Your task to perform on an android device: allow notifications from all sites in the chrome app Image 0: 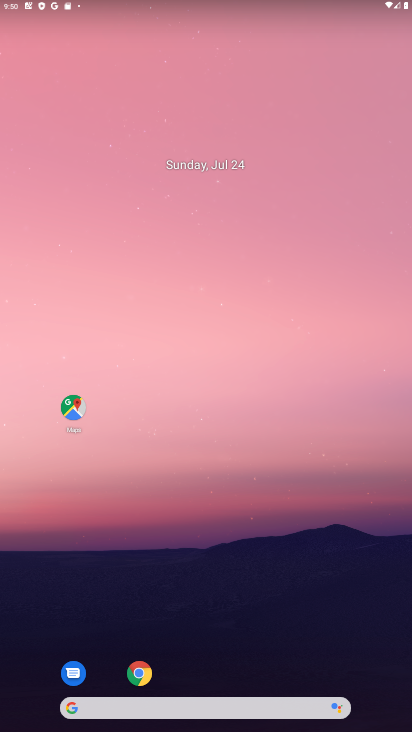
Step 0: click (141, 664)
Your task to perform on an android device: allow notifications from all sites in the chrome app Image 1: 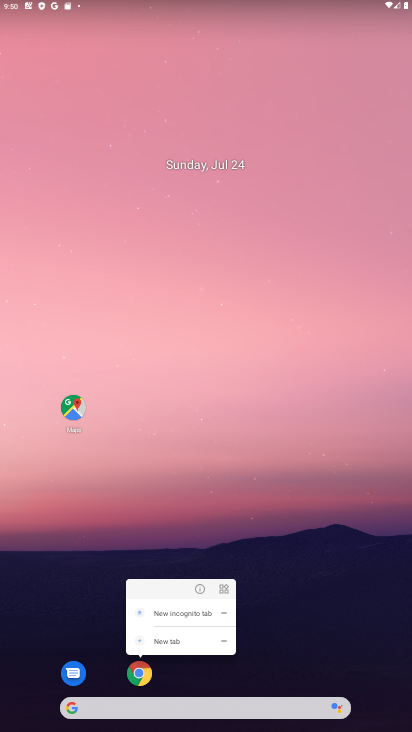
Step 1: click (140, 668)
Your task to perform on an android device: allow notifications from all sites in the chrome app Image 2: 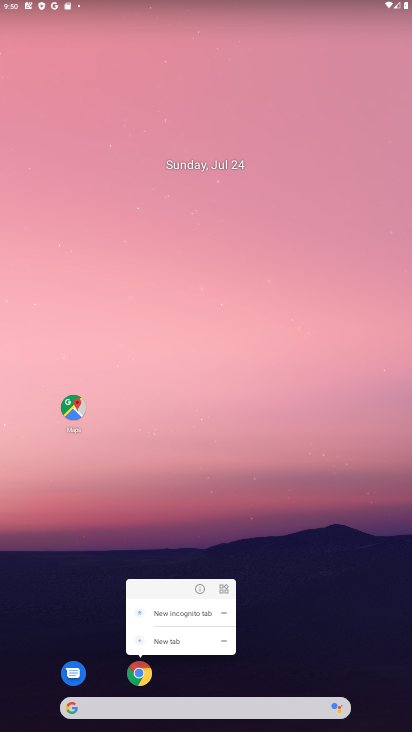
Step 2: click (143, 667)
Your task to perform on an android device: allow notifications from all sites in the chrome app Image 3: 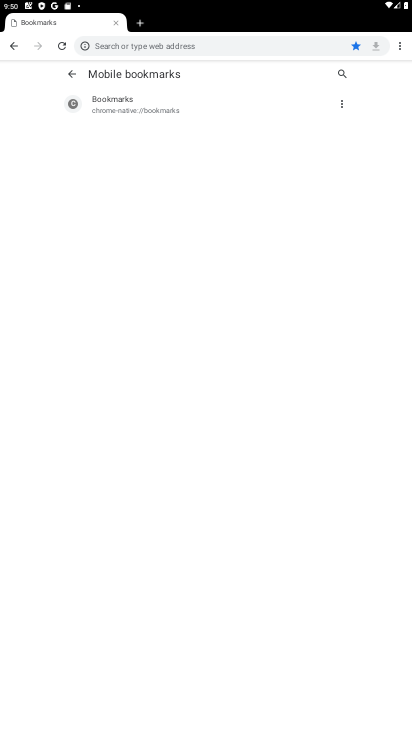
Step 3: click (400, 46)
Your task to perform on an android device: allow notifications from all sites in the chrome app Image 4: 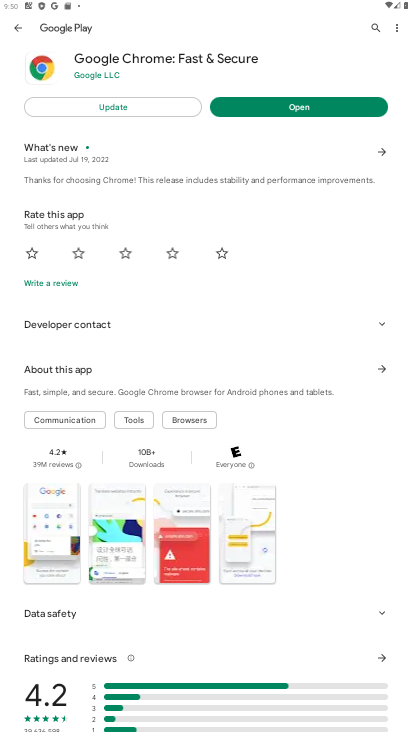
Step 4: click (395, 21)
Your task to perform on an android device: allow notifications from all sites in the chrome app Image 5: 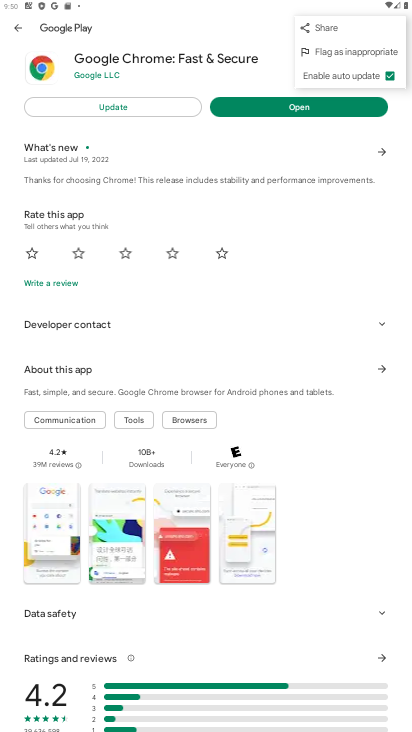
Step 5: click (21, 28)
Your task to perform on an android device: allow notifications from all sites in the chrome app Image 6: 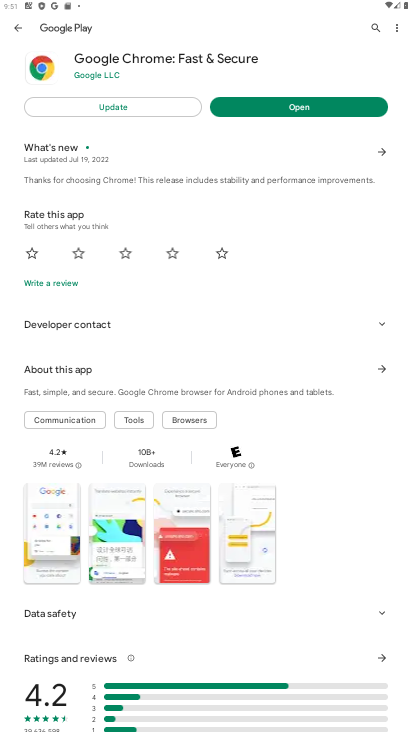
Step 6: click (398, 20)
Your task to perform on an android device: allow notifications from all sites in the chrome app Image 7: 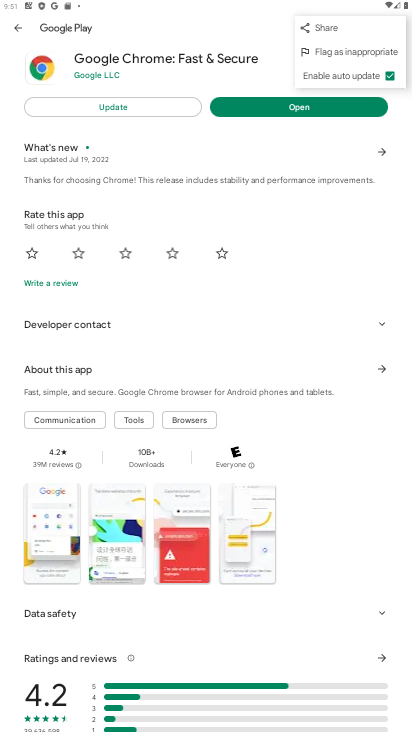
Step 7: click (20, 28)
Your task to perform on an android device: allow notifications from all sites in the chrome app Image 8: 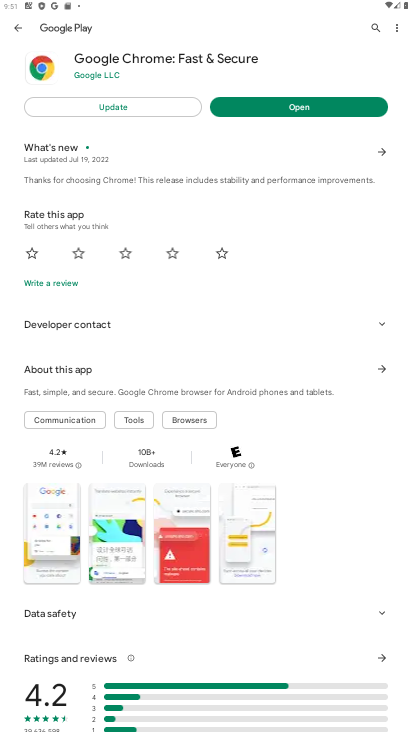
Step 8: click (13, 26)
Your task to perform on an android device: allow notifications from all sites in the chrome app Image 9: 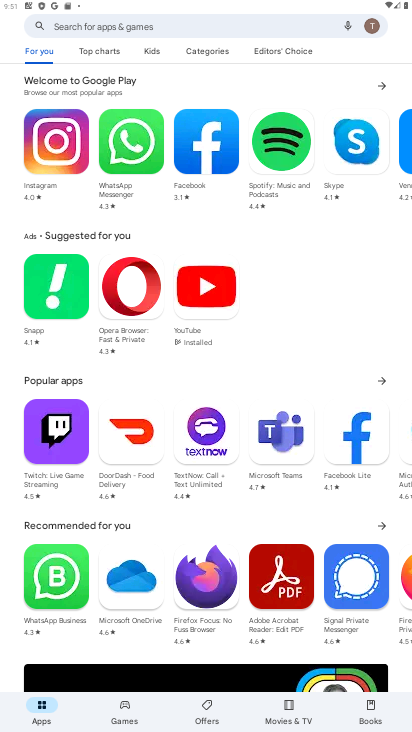
Step 9: task complete